Your task to perform on an android device: Open the Play Movies app and select the watchlist tab. Image 0: 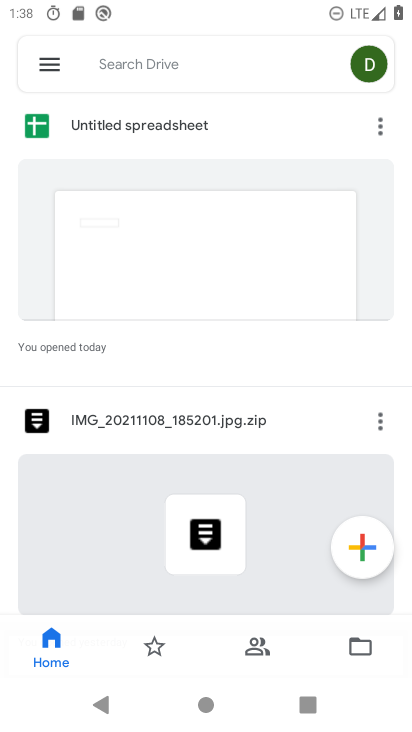
Step 0: press home button
Your task to perform on an android device: Open the Play Movies app and select the watchlist tab. Image 1: 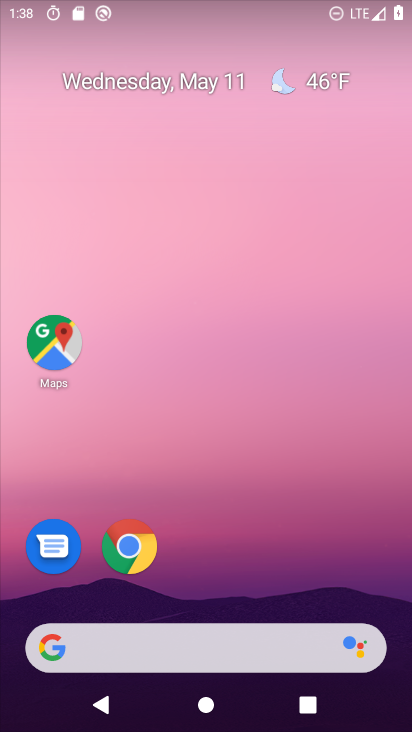
Step 1: drag from (265, 661) to (247, 289)
Your task to perform on an android device: Open the Play Movies app and select the watchlist tab. Image 2: 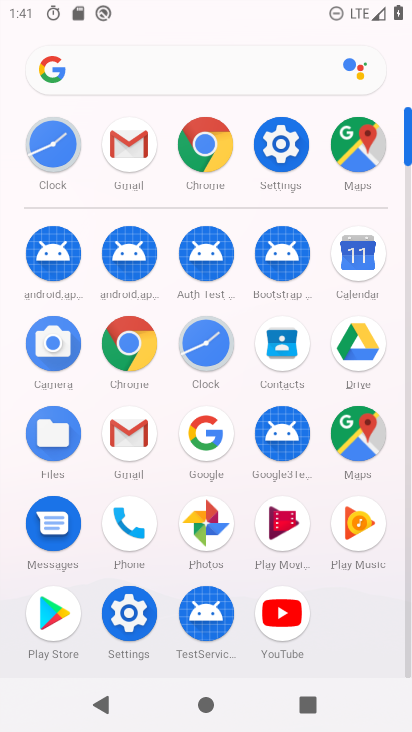
Step 2: click (285, 516)
Your task to perform on an android device: Open the Play Movies app and select the watchlist tab. Image 3: 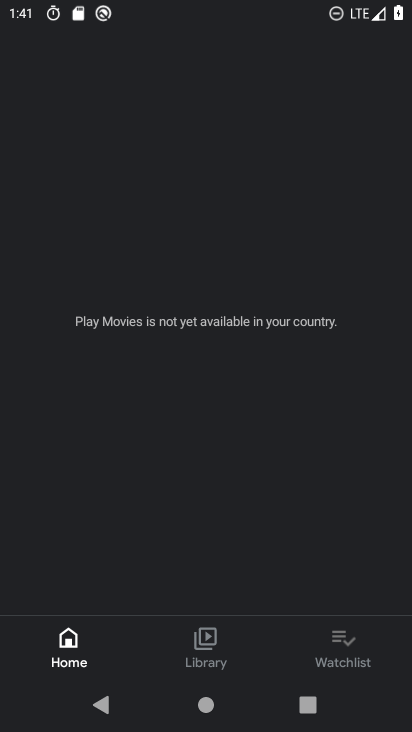
Step 3: click (342, 657)
Your task to perform on an android device: Open the Play Movies app and select the watchlist tab. Image 4: 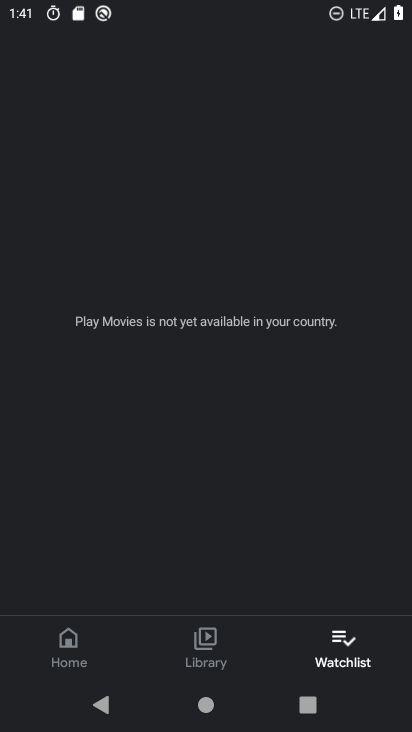
Step 4: task complete